Your task to perform on an android device: change keyboard looks Image 0: 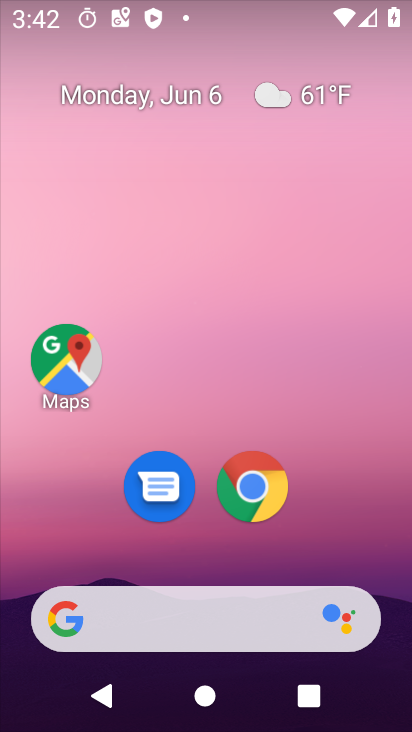
Step 0: drag from (342, 530) to (261, 118)
Your task to perform on an android device: change keyboard looks Image 1: 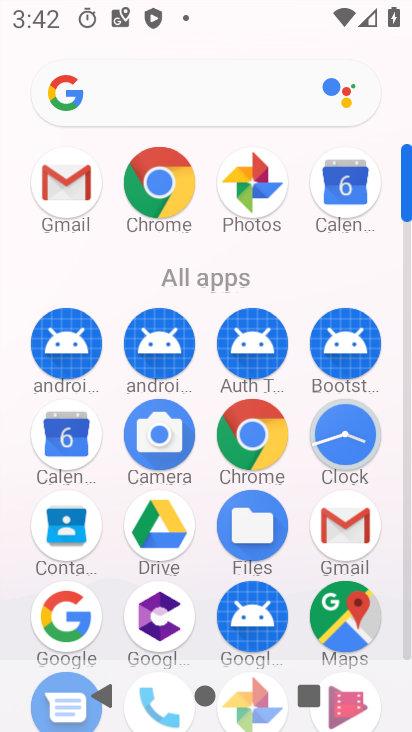
Step 1: drag from (214, 598) to (213, 224)
Your task to perform on an android device: change keyboard looks Image 2: 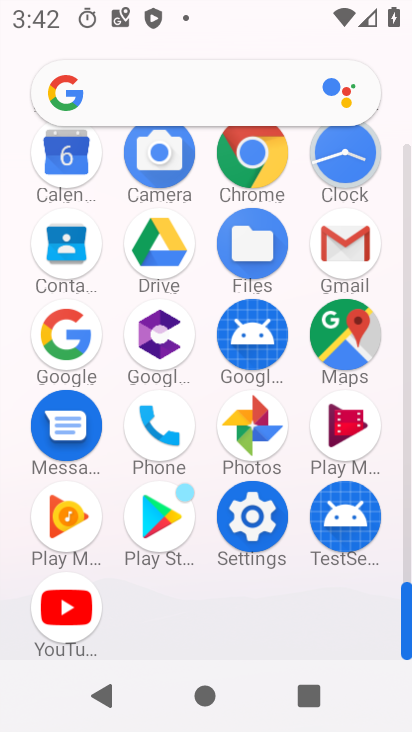
Step 2: click (272, 530)
Your task to perform on an android device: change keyboard looks Image 3: 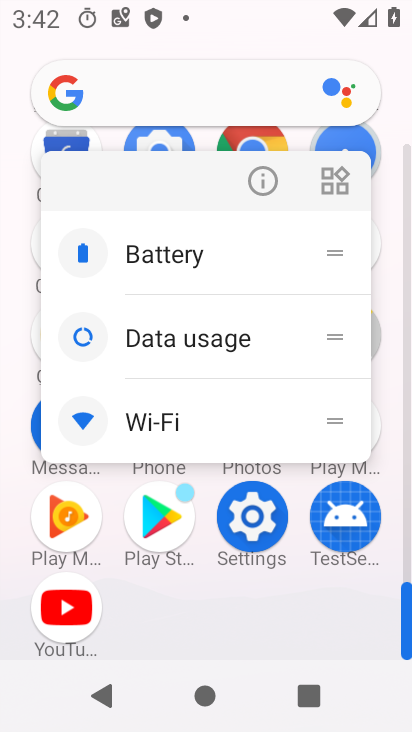
Step 3: click (248, 521)
Your task to perform on an android device: change keyboard looks Image 4: 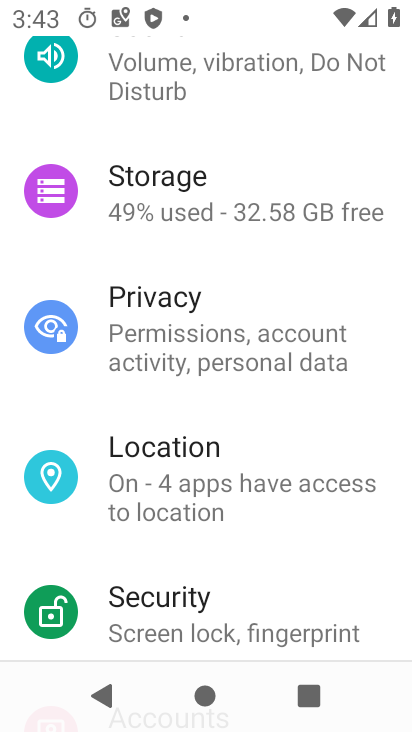
Step 4: drag from (202, 568) to (246, 150)
Your task to perform on an android device: change keyboard looks Image 5: 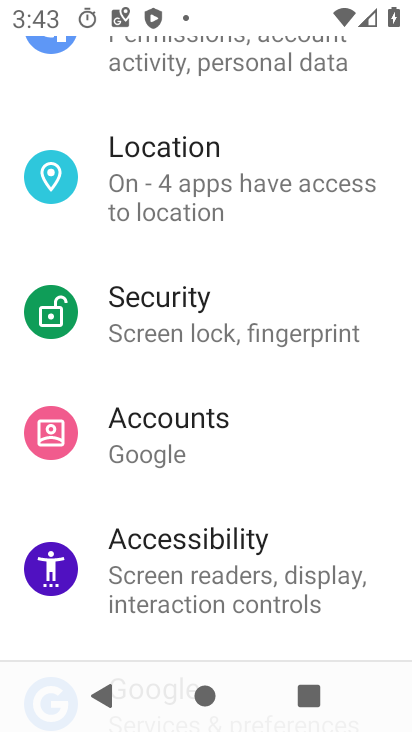
Step 5: drag from (236, 526) to (215, 165)
Your task to perform on an android device: change keyboard looks Image 6: 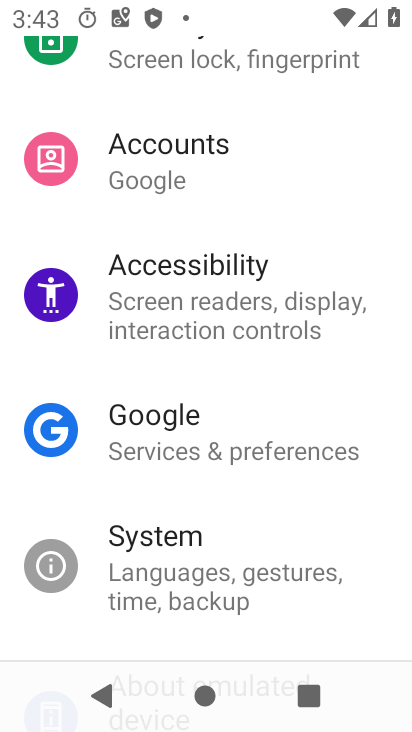
Step 6: click (209, 569)
Your task to perform on an android device: change keyboard looks Image 7: 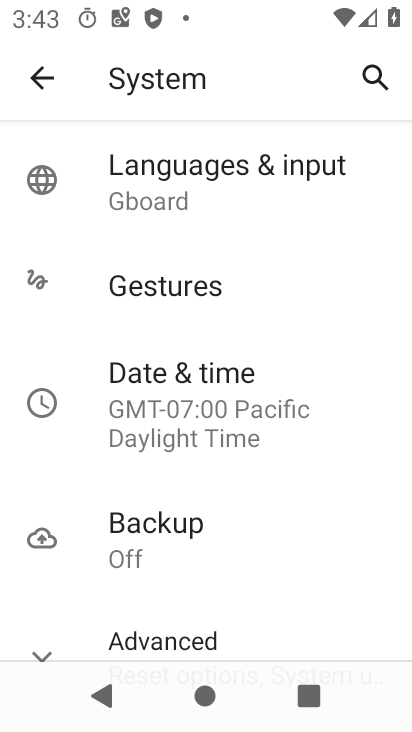
Step 7: click (192, 187)
Your task to perform on an android device: change keyboard looks Image 8: 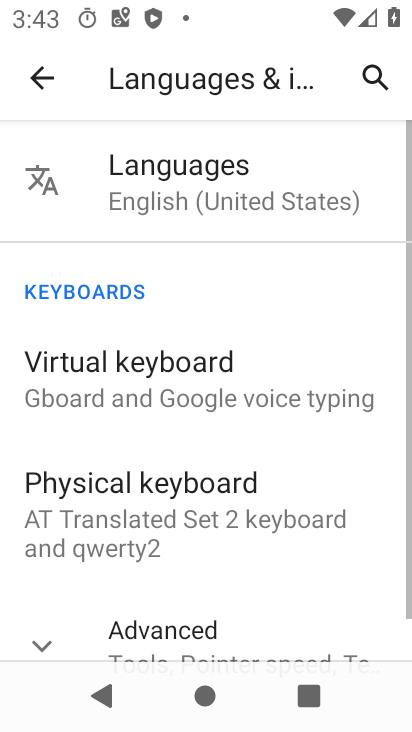
Step 8: click (137, 382)
Your task to perform on an android device: change keyboard looks Image 9: 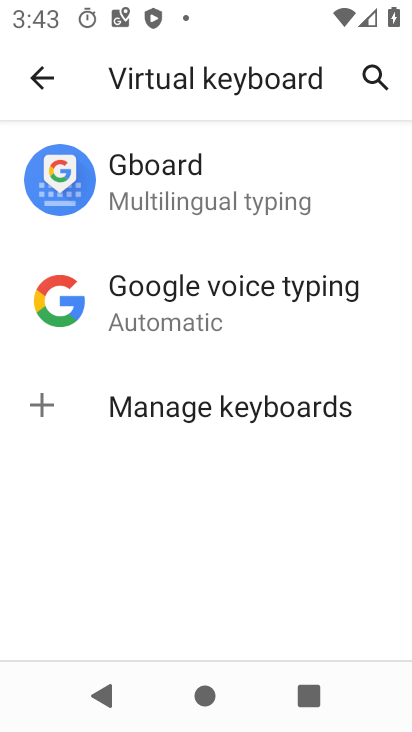
Step 9: click (204, 210)
Your task to perform on an android device: change keyboard looks Image 10: 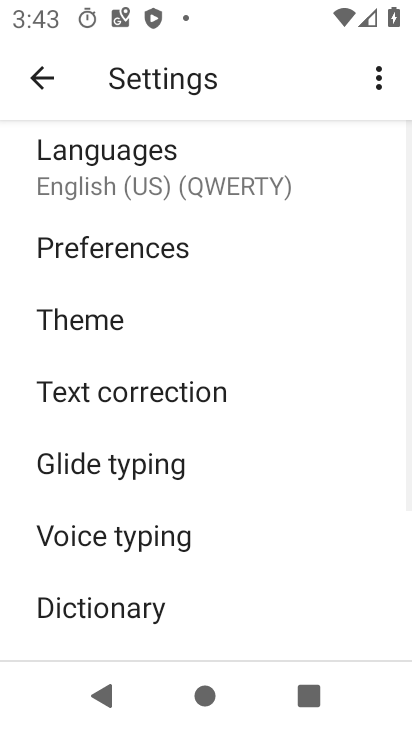
Step 10: click (121, 323)
Your task to perform on an android device: change keyboard looks Image 11: 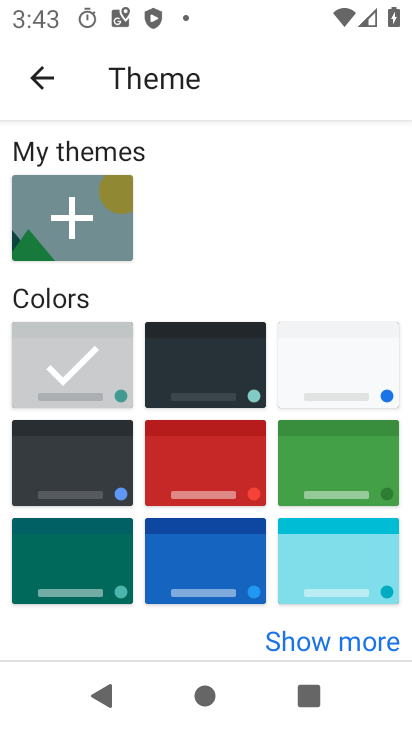
Step 11: click (330, 347)
Your task to perform on an android device: change keyboard looks Image 12: 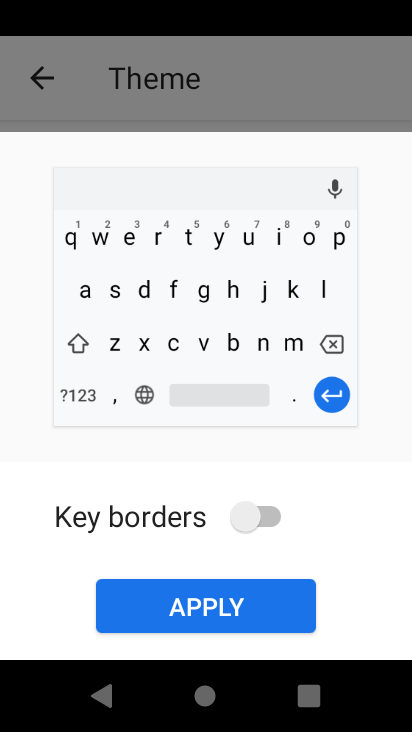
Step 12: click (169, 597)
Your task to perform on an android device: change keyboard looks Image 13: 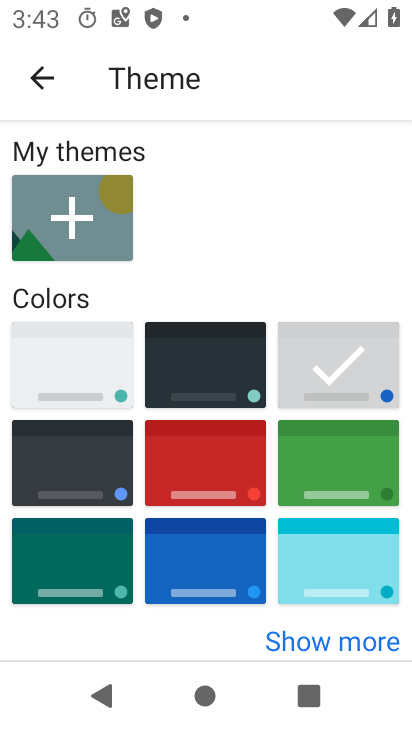
Step 13: task complete